Your task to perform on an android device: turn on translation in the chrome app Image 0: 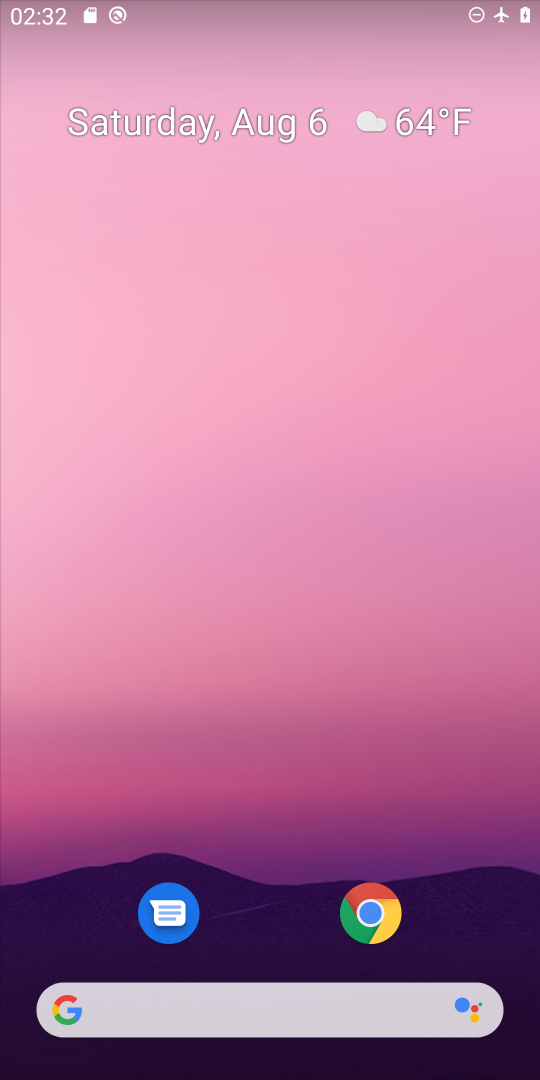
Step 0: press home button
Your task to perform on an android device: turn on translation in the chrome app Image 1: 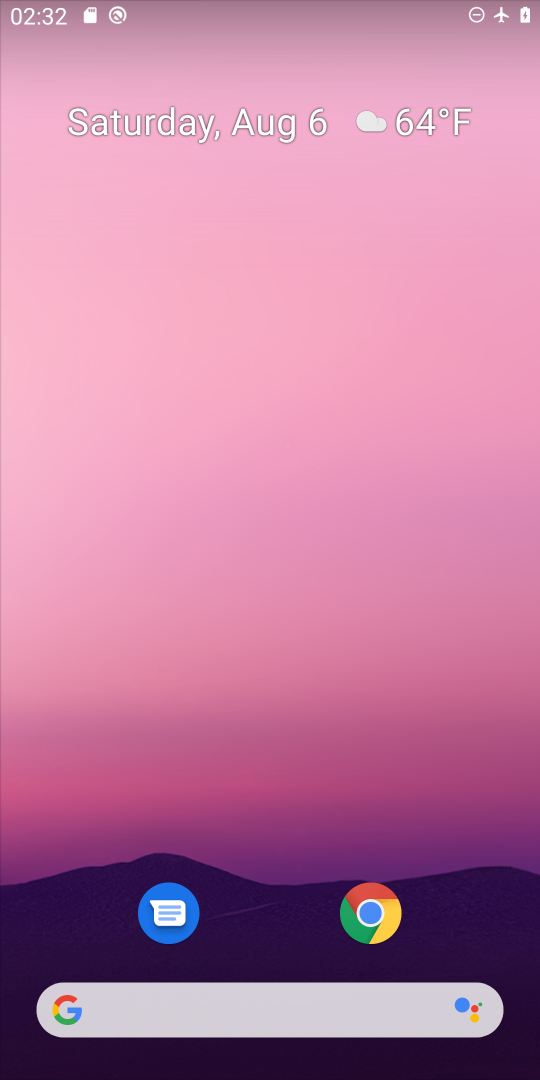
Step 1: drag from (269, 904) to (311, 245)
Your task to perform on an android device: turn on translation in the chrome app Image 2: 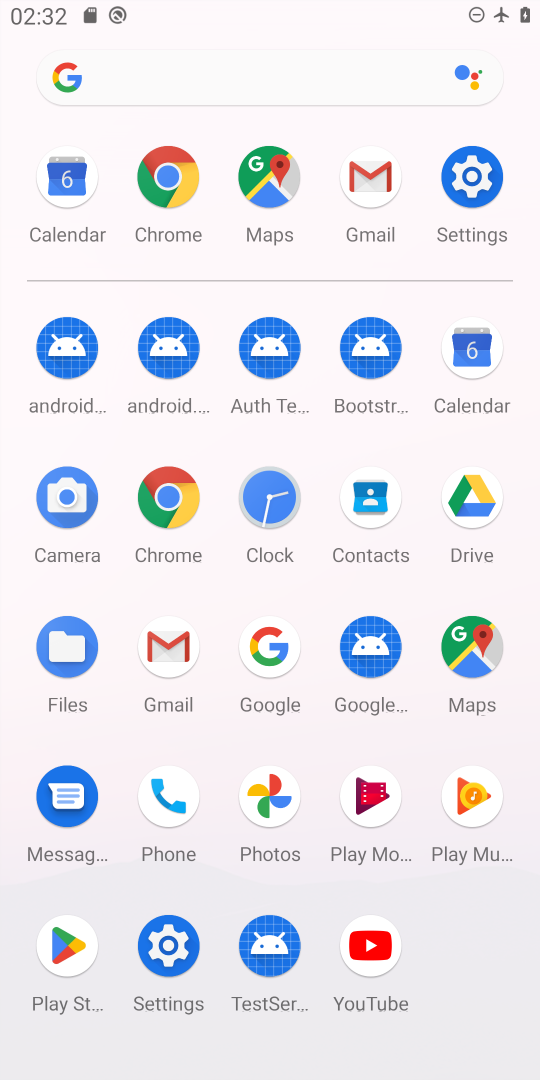
Step 2: click (167, 493)
Your task to perform on an android device: turn on translation in the chrome app Image 3: 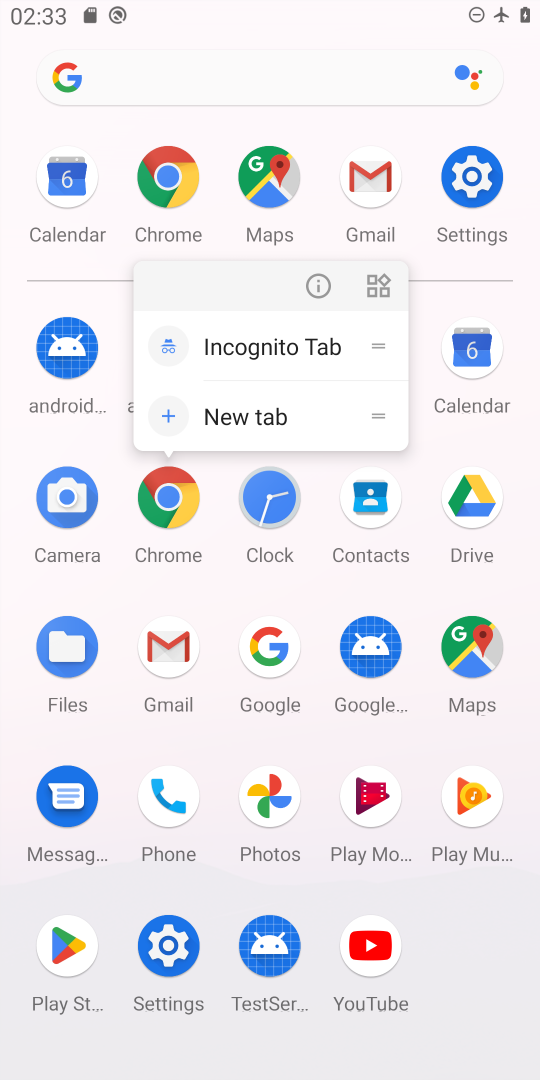
Step 3: click (167, 493)
Your task to perform on an android device: turn on translation in the chrome app Image 4: 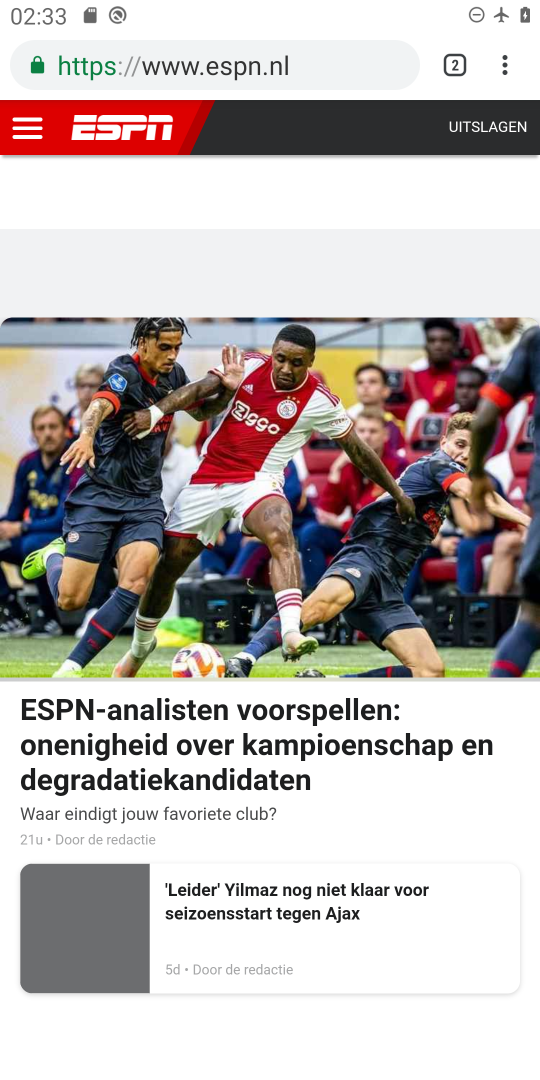
Step 4: click (506, 72)
Your task to perform on an android device: turn on translation in the chrome app Image 5: 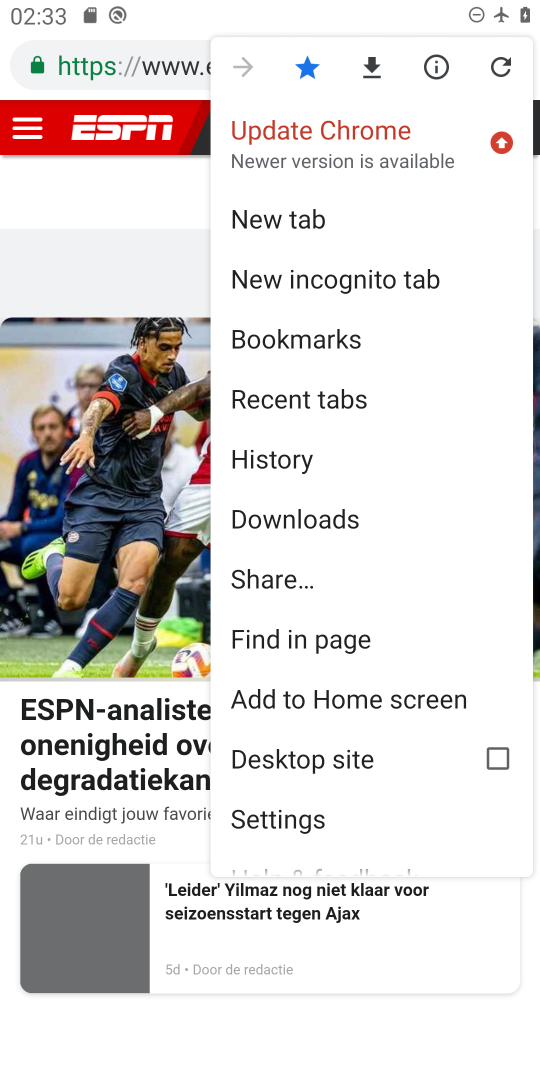
Step 5: click (317, 819)
Your task to perform on an android device: turn on translation in the chrome app Image 6: 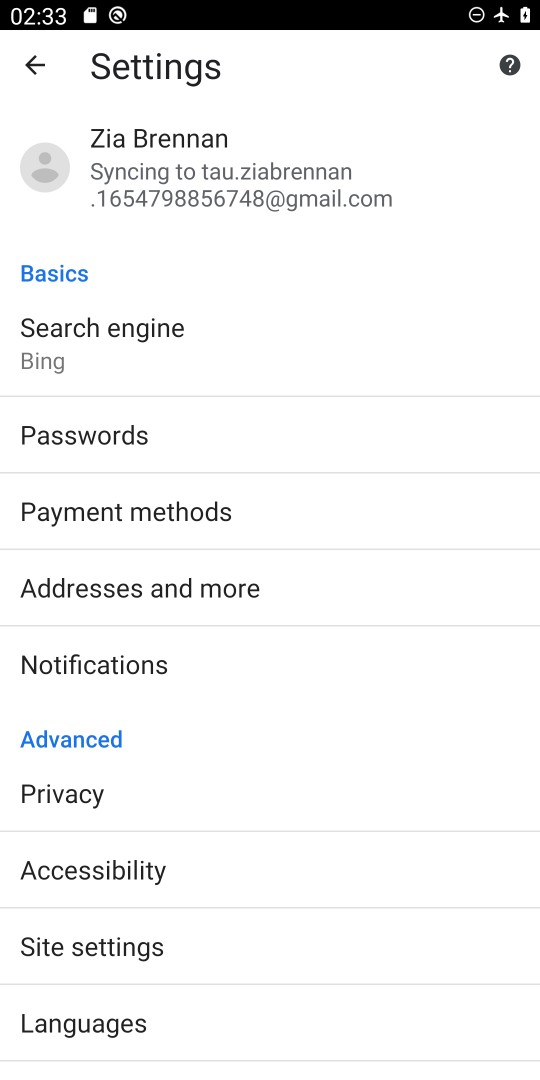
Step 6: click (253, 1015)
Your task to perform on an android device: turn on translation in the chrome app Image 7: 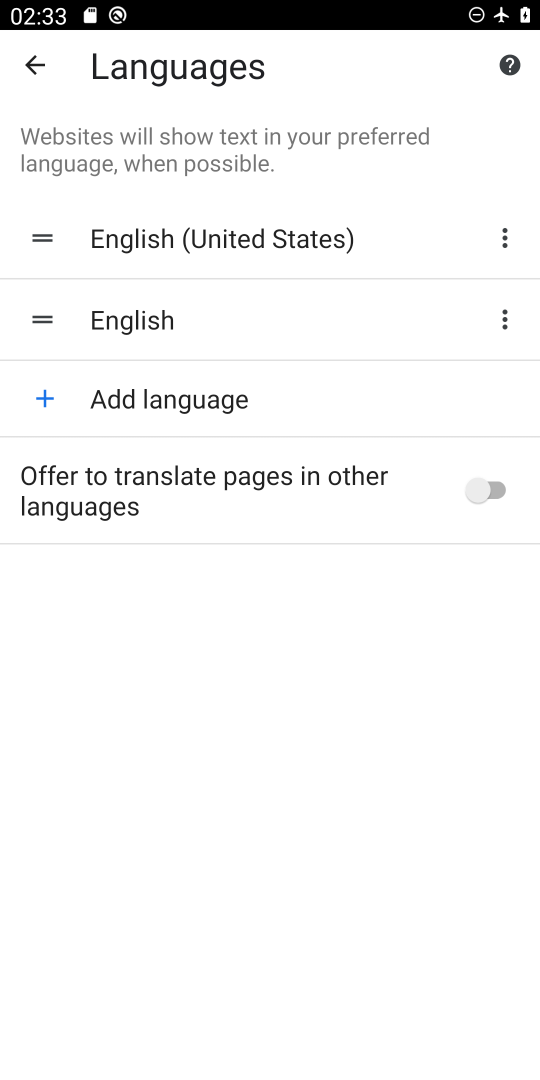
Step 7: click (480, 487)
Your task to perform on an android device: turn on translation in the chrome app Image 8: 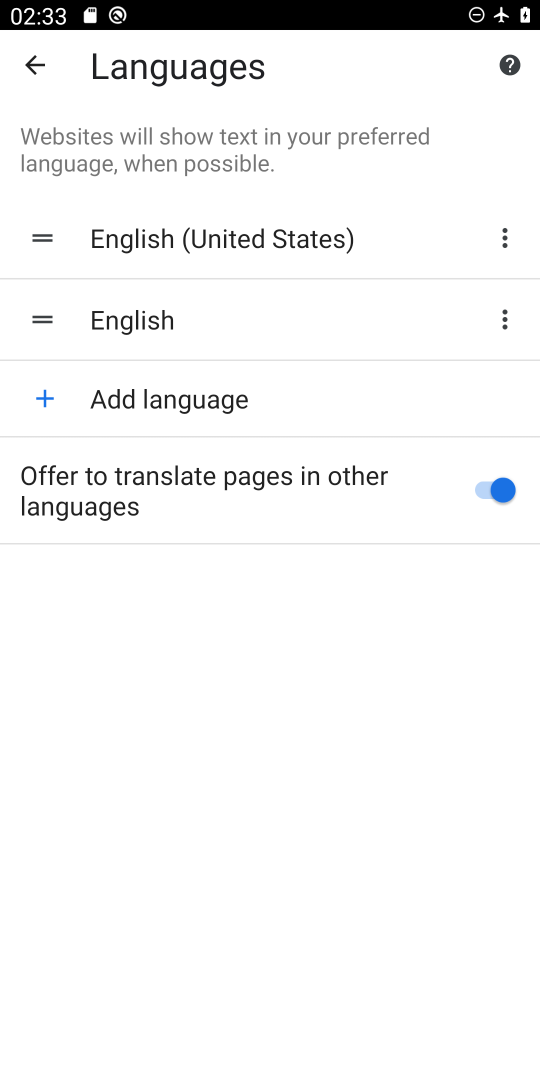
Step 8: task complete